Your task to perform on an android device: Open network settings Image 0: 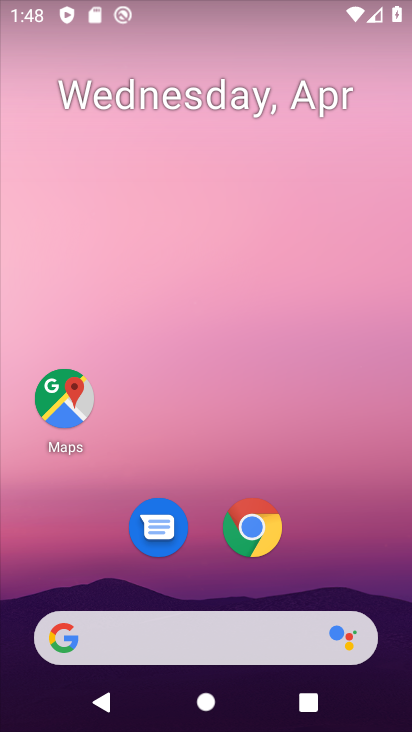
Step 0: drag from (186, 596) to (205, 153)
Your task to perform on an android device: Open network settings Image 1: 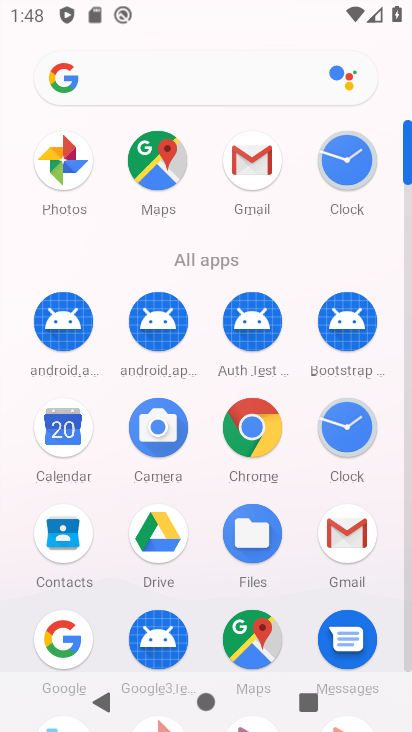
Step 1: drag from (235, 563) to (275, 131)
Your task to perform on an android device: Open network settings Image 2: 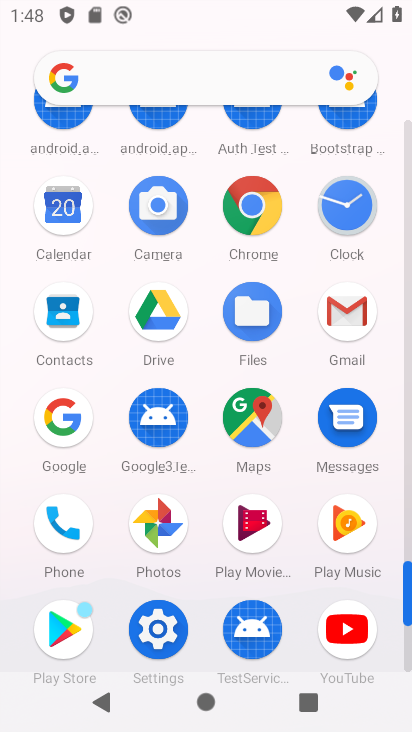
Step 2: click (166, 645)
Your task to perform on an android device: Open network settings Image 3: 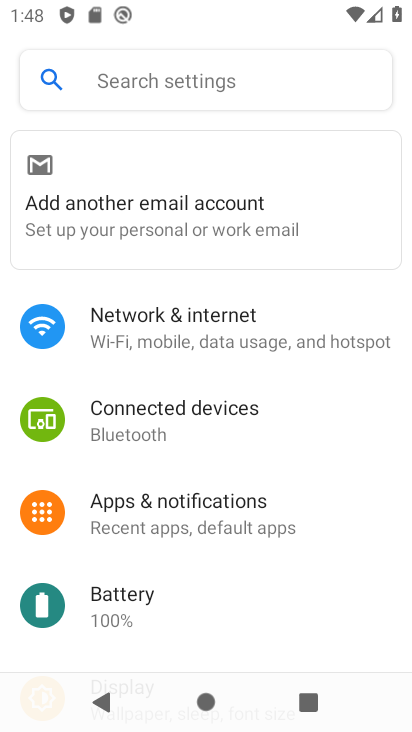
Step 3: drag from (182, 629) to (209, 299)
Your task to perform on an android device: Open network settings Image 4: 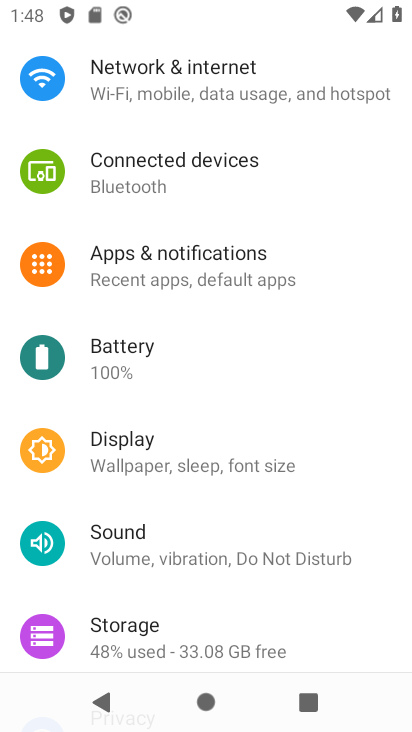
Step 4: drag from (169, 547) to (219, 249)
Your task to perform on an android device: Open network settings Image 5: 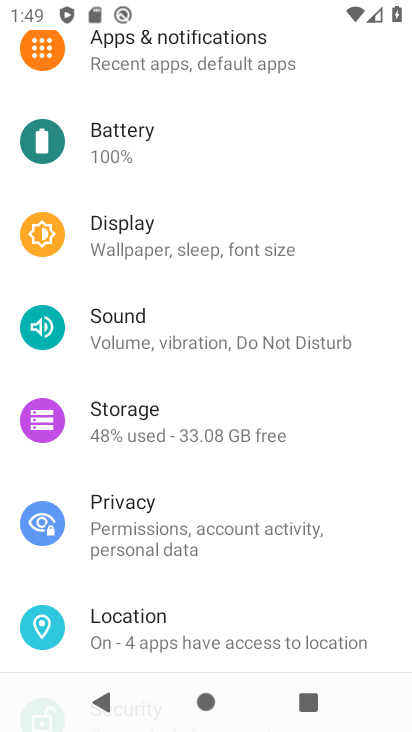
Step 5: drag from (164, 617) to (213, 351)
Your task to perform on an android device: Open network settings Image 6: 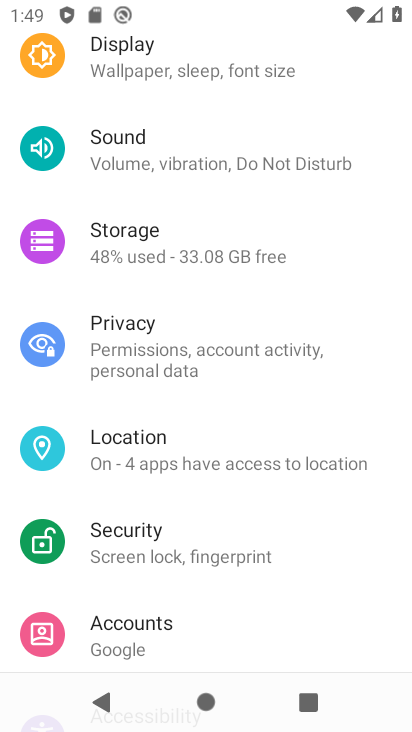
Step 6: drag from (171, 565) to (175, 411)
Your task to perform on an android device: Open network settings Image 7: 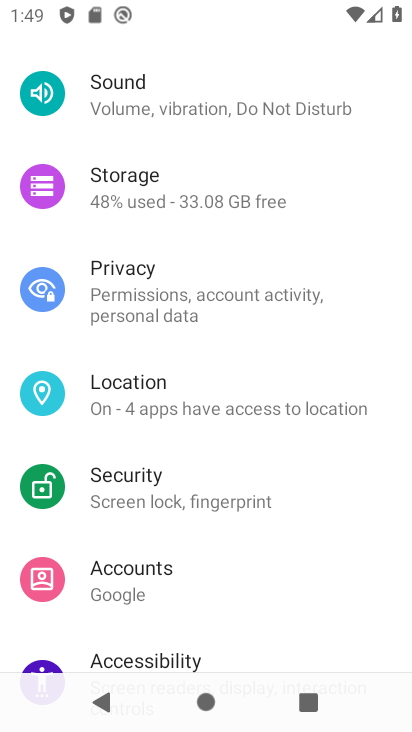
Step 7: drag from (151, 205) to (141, 590)
Your task to perform on an android device: Open network settings Image 8: 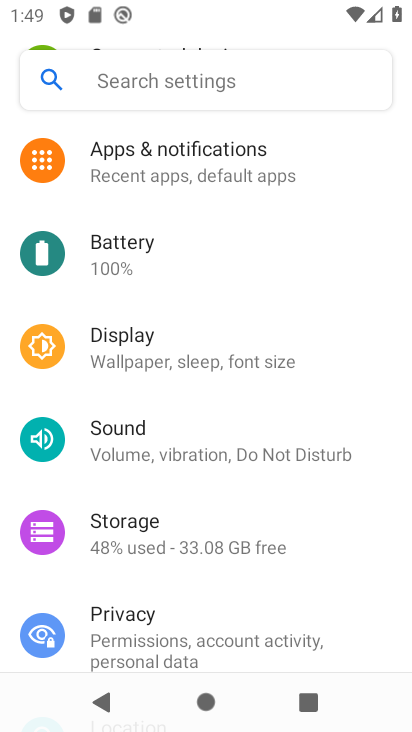
Step 8: drag from (137, 196) to (135, 465)
Your task to perform on an android device: Open network settings Image 9: 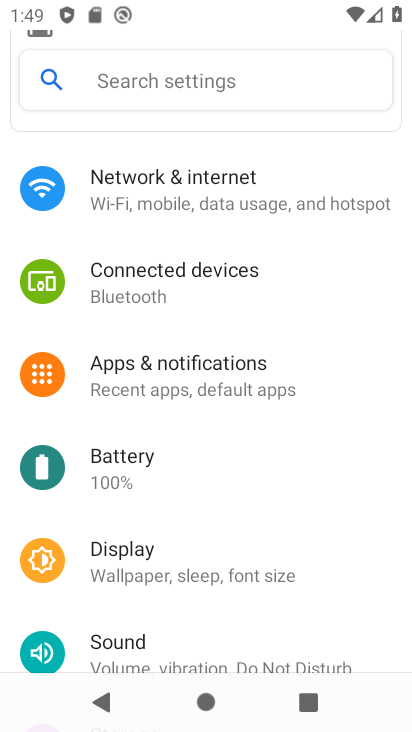
Step 9: click (167, 187)
Your task to perform on an android device: Open network settings Image 10: 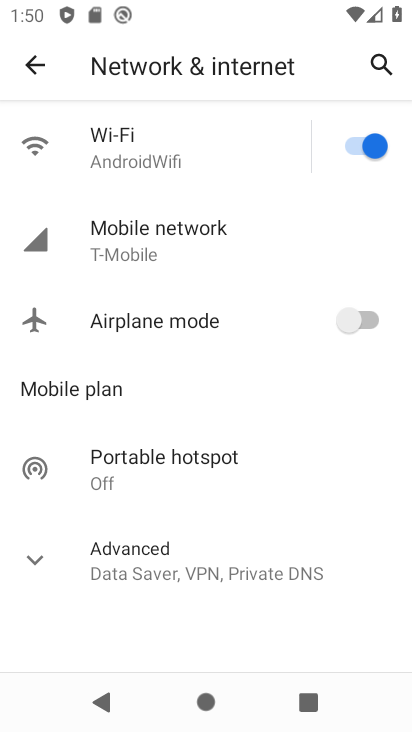
Step 10: click (146, 233)
Your task to perform on an android device: Open network settings Image 11: 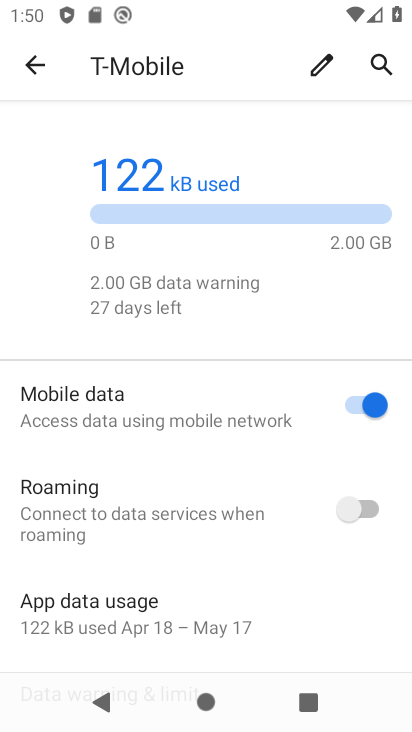
Step 11: task complete